Your task to perform on an android device: Search for Mexican restaurants on Maps Image 0: 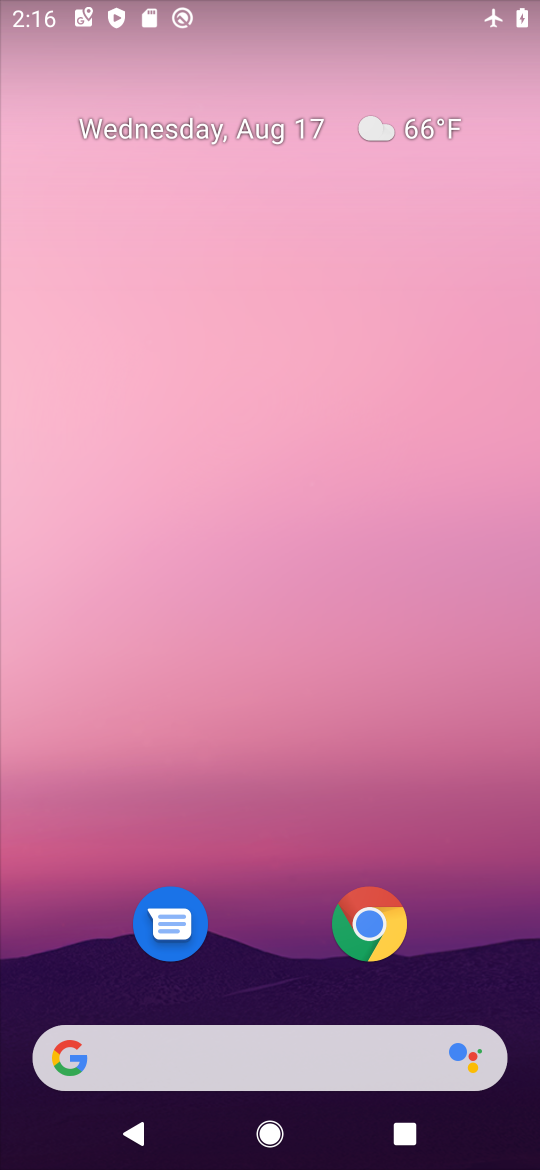
Step 0: drag from (235, 1042) to (266, 55)
Your task to perform on an android device: Search for Mexican restaurants on Maps Image 1: 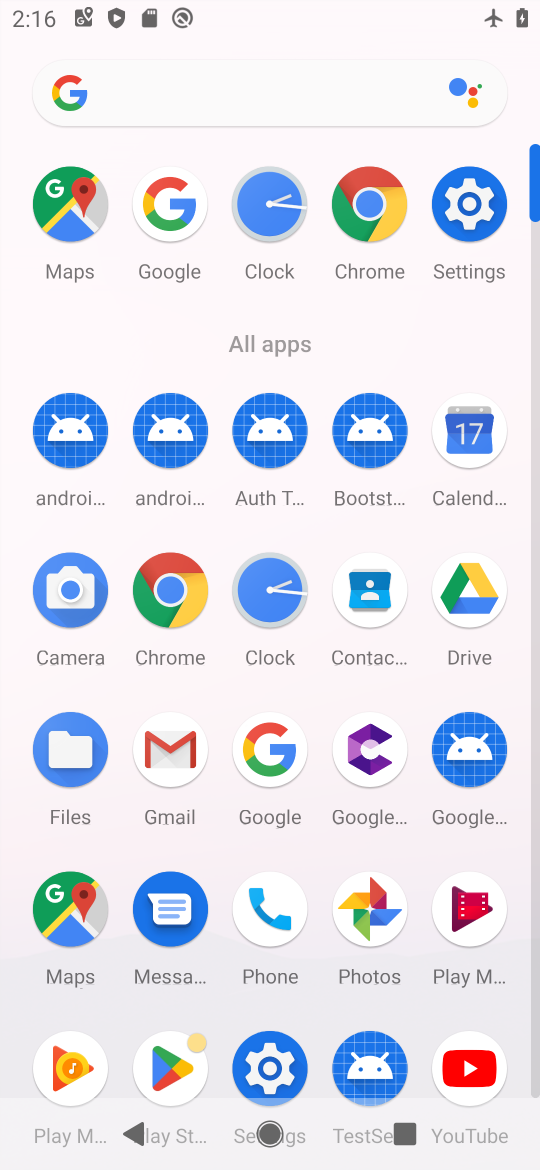
Step 1: click (65, 208)
Your task to perform on an android device: Search for Mexican restaurants on Maps Image 2: 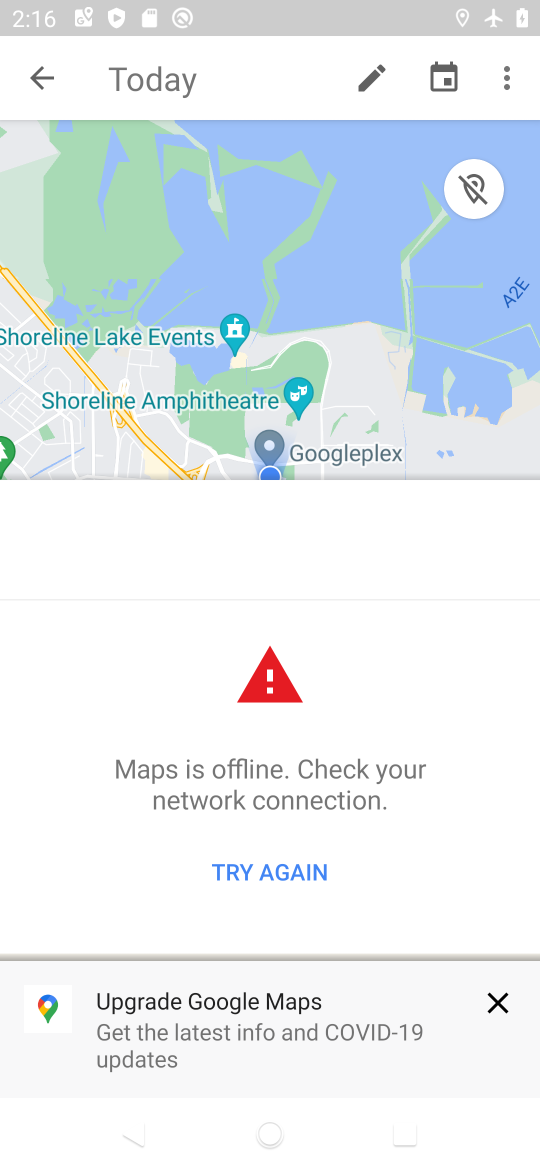
Step 2: press back button
Your task to perform on an android device: Search for Mexican restaurants on Maps Image 3: 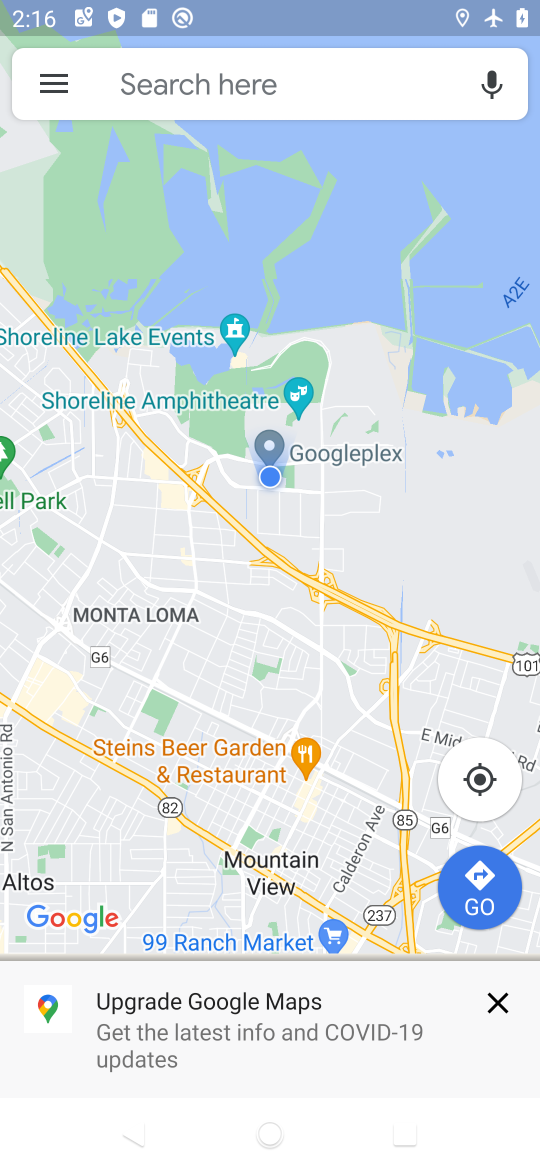
Step 3: click (236, 76)
Your task to perform on an android device: Search for Mexican restaurants on Maps Image 4: 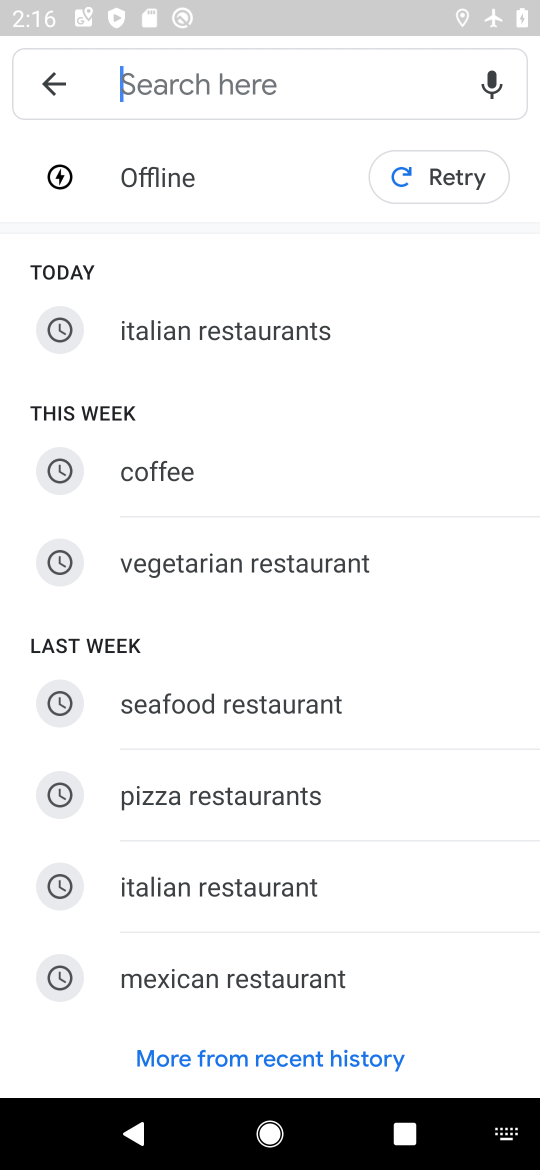
Step 4: type "Mexican restaurants"
Your task to perform on an android device: Search for Mexican restaurants on Maps Image 5: 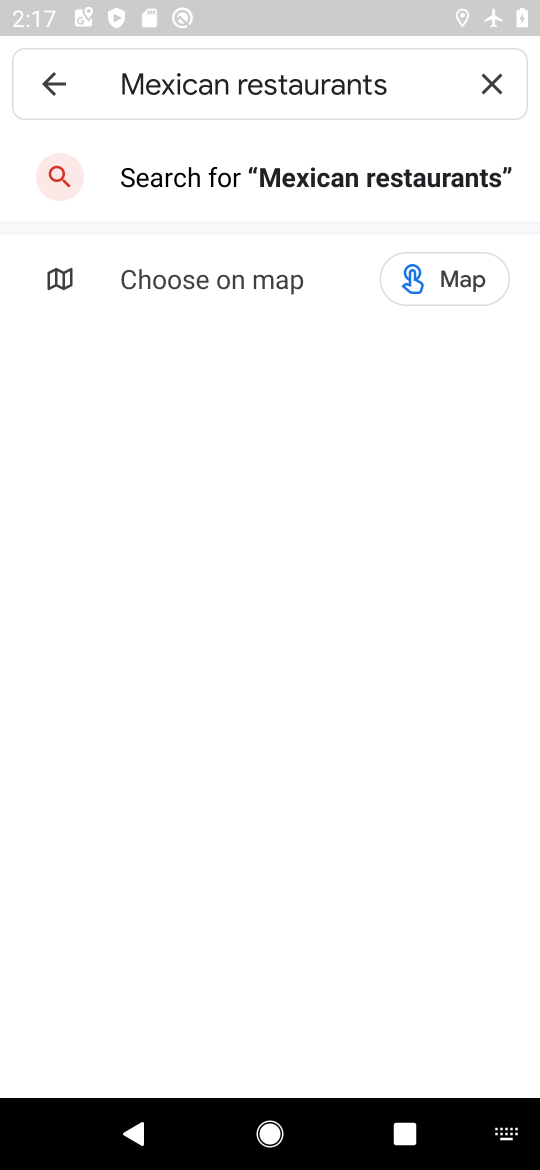
Step 5: task complete